Your task to perform on an android device: star an email in the gmail app Image 0: 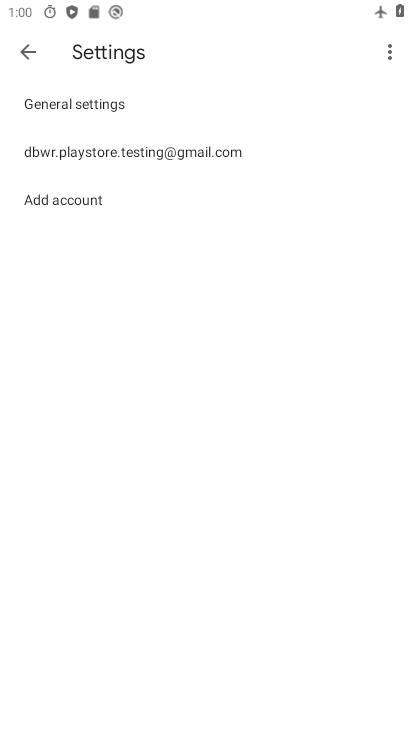
Step 0: drag from (131, 573) to (256, 107)
Your task to perform on an android device: star an email in the gmail app Image 1: 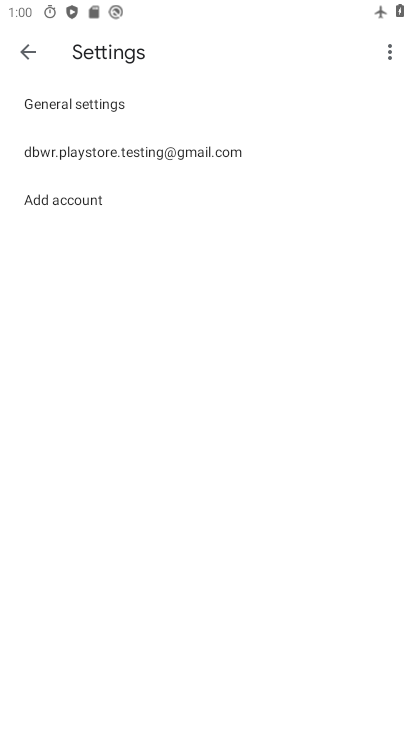
Step 1: press home button
Your task to perform on an android device: star an email in the gmail app Image 2: 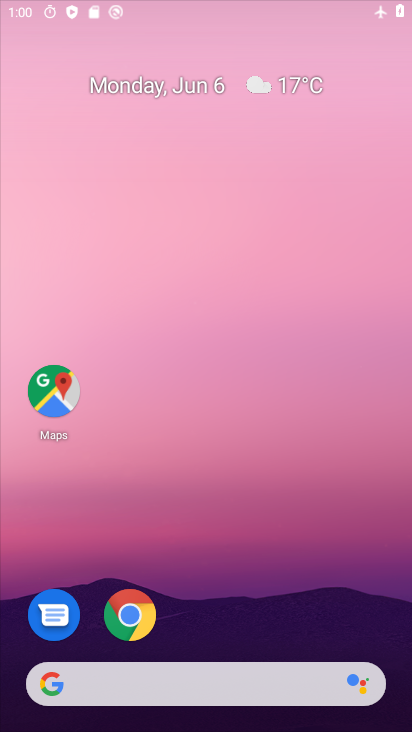
Step 2: drag from (178, 626) to (299, 66)
Your task to perform on an android device: star an email in the gmail app Image 3: 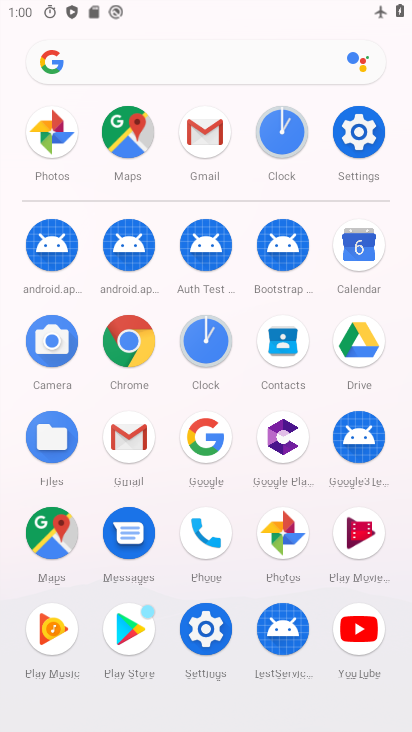
Step 3: click (129, 422)
Your task to perform on an android device: star an email in the gmail app Image 4: 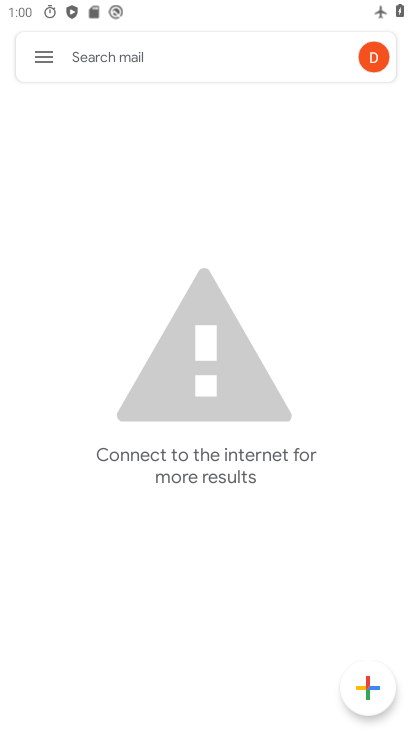
Step 4: click (46, 47)
Your task to perform on an android device: star an email in the gmail app Image 5: 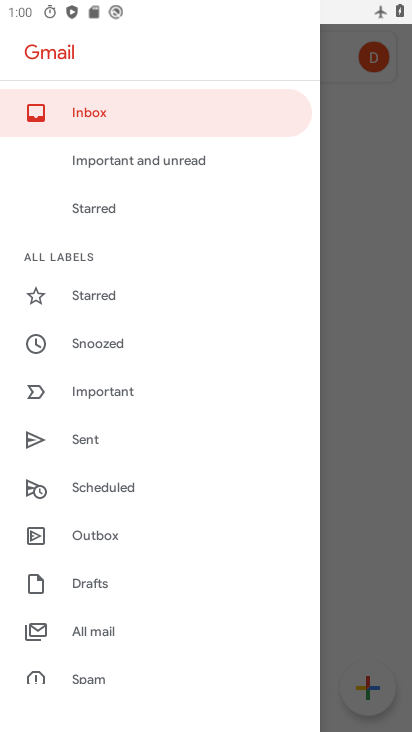
Step 5: click (105, 300)
Your task to perform on an android device: star an email in the gmail app Image 6: 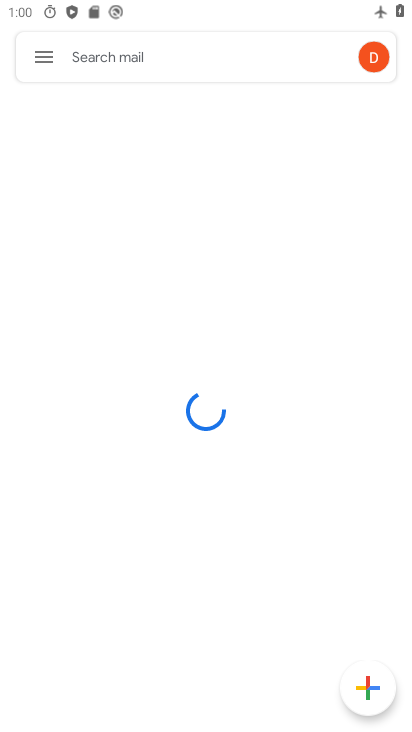
Step 6: drag from (240, 614) to (260, 216)
Your task to perform on an android device: star an email in the gmail app Image 7: 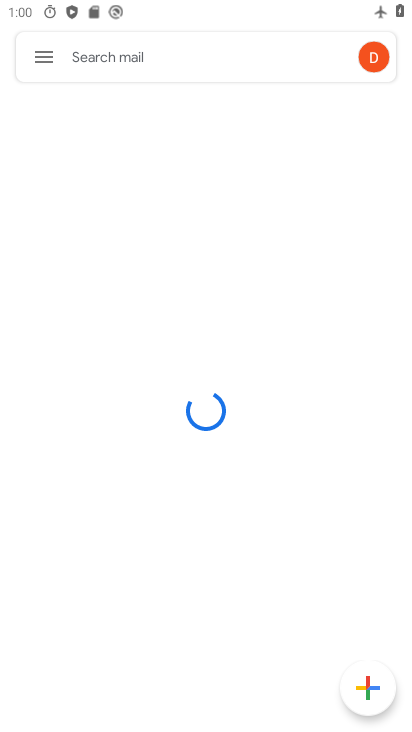
Step 7: drag from (266, 568) to (285, 217)
Your task to perform on an android device: star an email in the gmail app Image 8: 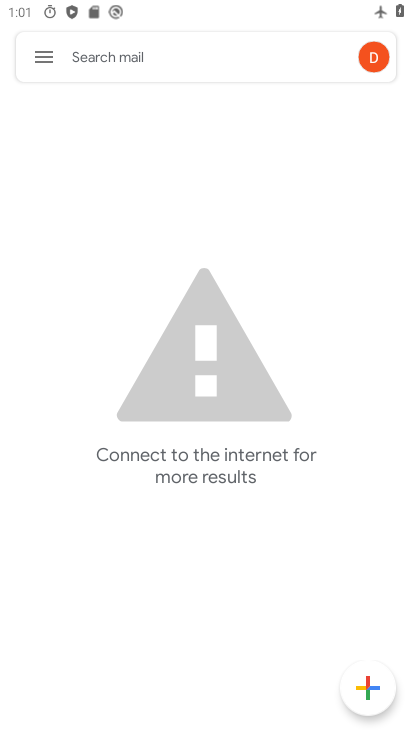
Step 8: click (50, 72)
Your task to perform on an android device: star an email in the gmail app Image 9: 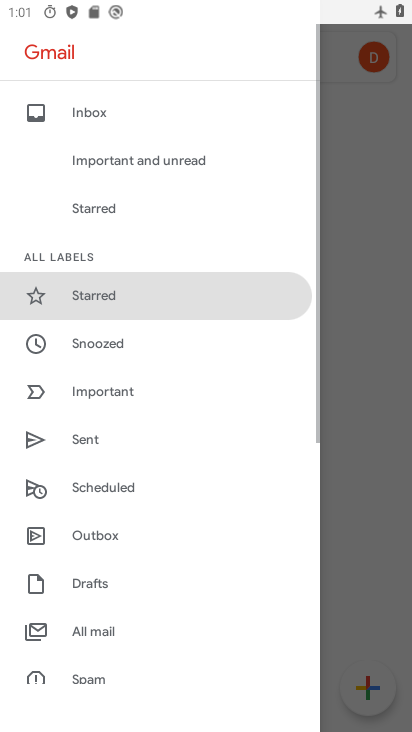
Step 9: click (98, 298)
Your task to perform on an android device: star an email in the gmail app Image 10: 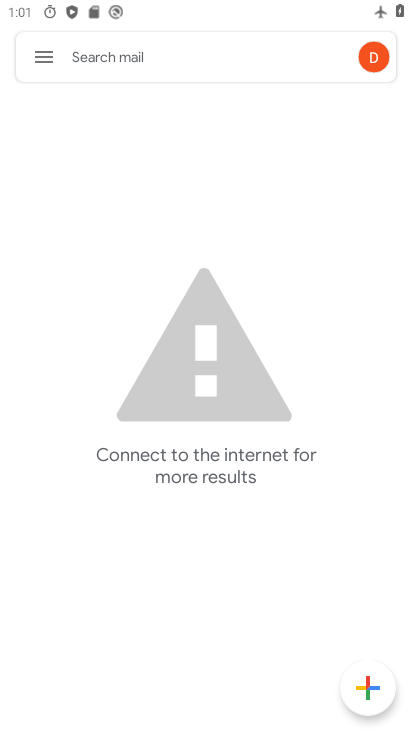
Step 10: task complete